Your task to perform on an android device: Open the phone app and click the voicemail tab. Image 0: 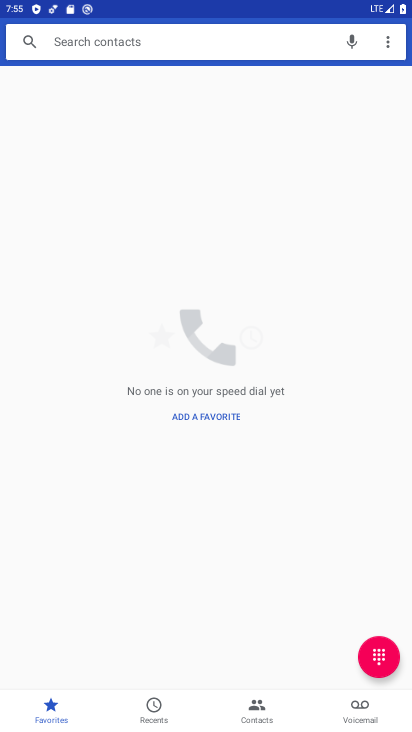
Step 0: click (363, 708)
Your task to perform on an android device: Open the phone app and click the voicemail tab. Image 1: 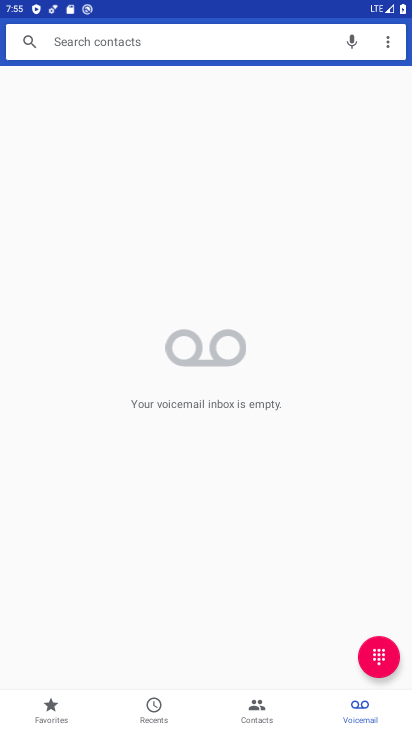
Step 1: task complete